Your task to perform on an android device: turn on priority inbox in the gmail app Image 0: 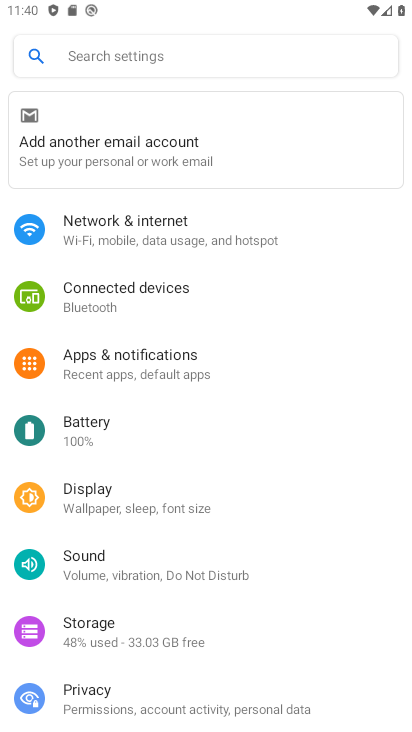
Step 0: press home button
Your task to perform on an android device: turn on priority inbox in the gmail app Image 1: 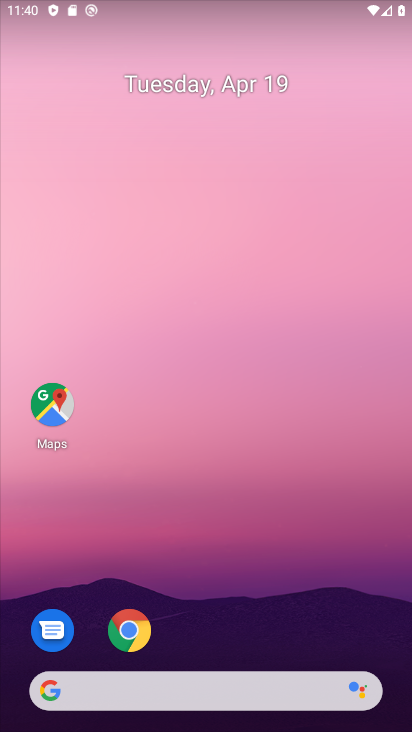
Step 1: drag from (256, 464) to (252, 105)
Your task to perform on an android device: turn on priority inbox in the gmail app Image 2: 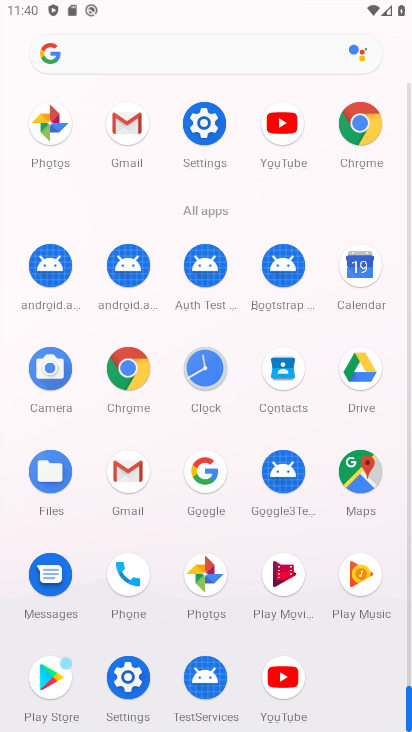
Step 2: click (125, 472)
Your task to perform on an android device: turn on priority inbox in the gmail app Image 3: 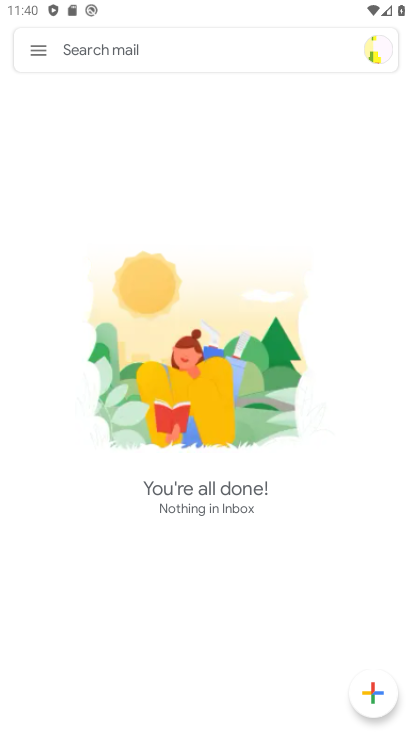
Step 3: click (36, 51)
Your task to perform on an android device: turn on priority inbox in the gmail app Image 4: 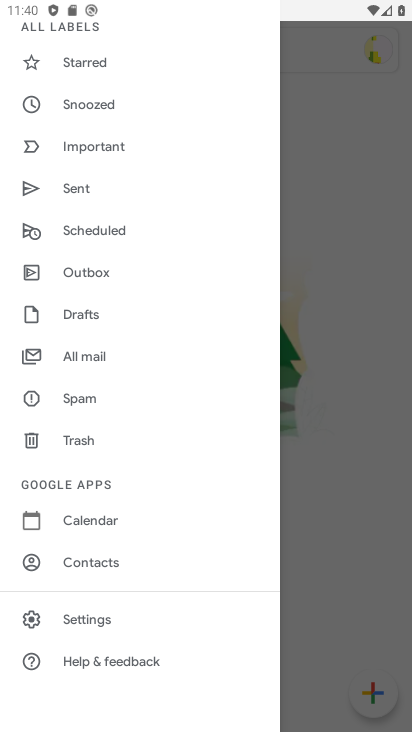
Step 4: click (73, 612)
Your task to perform on an android device: turn on priority inbox in the gmail app Image 5: 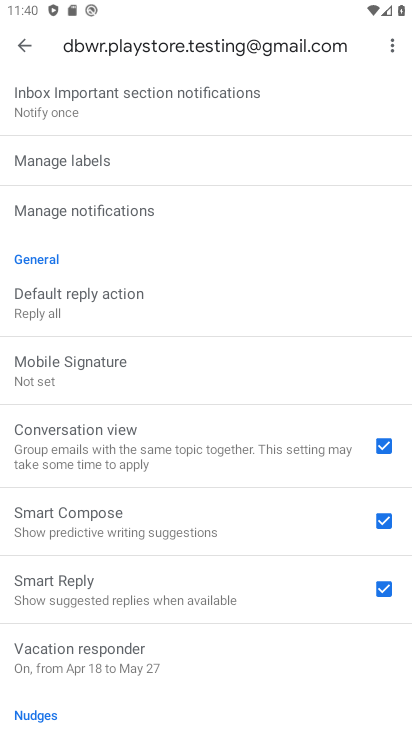
Step 5: drag from (262, 426) to (262, 374)
Your task to perform on an android device: turn on priority inbox in the gmail app Image 6: 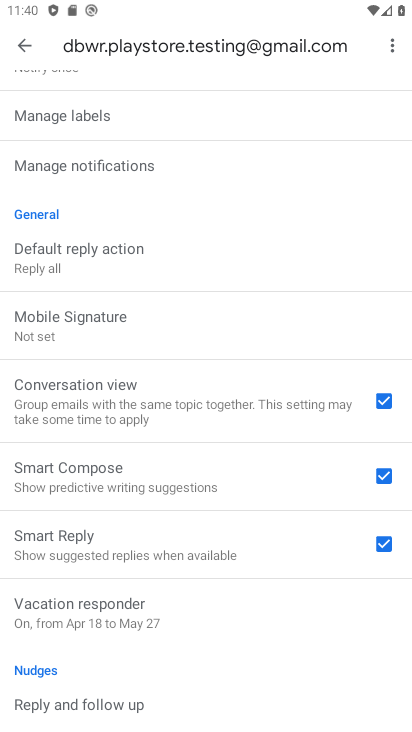
Step 6: drag from (252, 277) to (254, 701)
Your task to perform on an android device: turn on priority inbox in the gmail app Image 7: 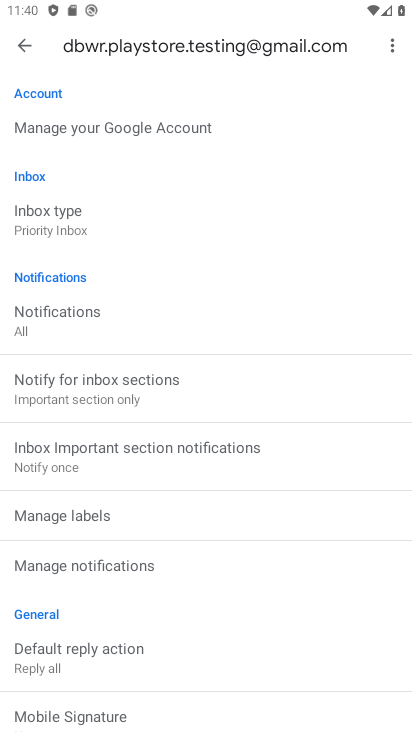
Step 7: click (65, 226)
Your task to perform on an android device: turn on priority inbox in the gmail app Image 8: 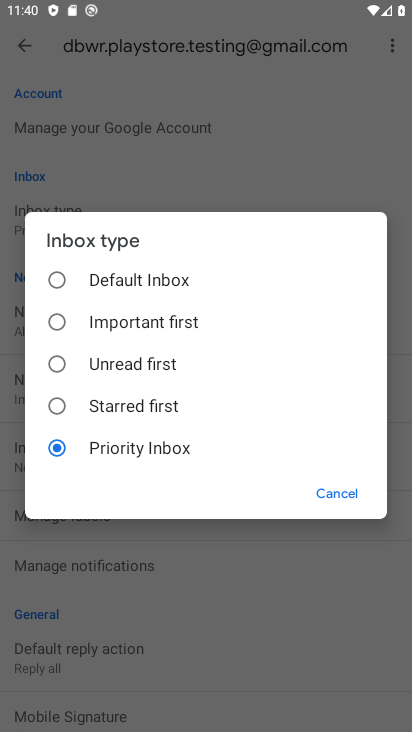
Step 8: click (135, 443)
Your task to perform on an android device: turn on priority inbox in the gmail app Image 9: 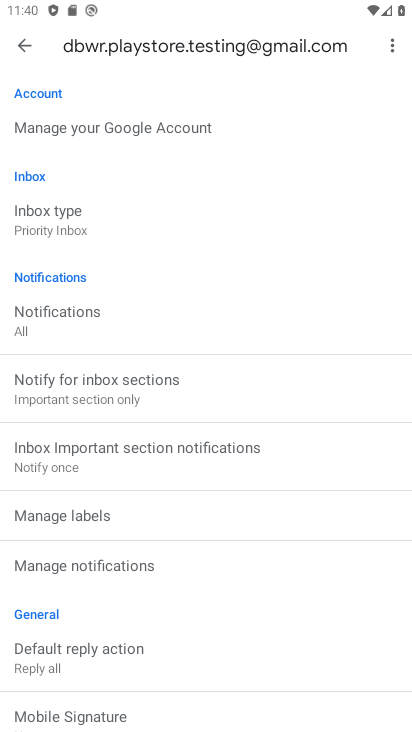
Step 9: task complete